Your task to perform on an android device: delete browsing data in the chrome app Image 0: 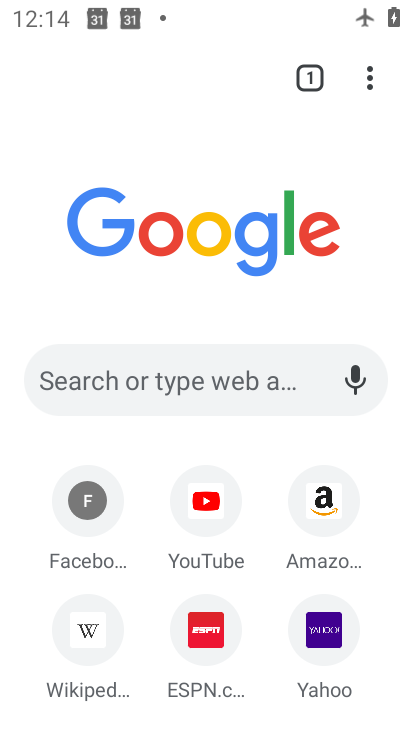
Step 0: click (367, 86)
Your task to perform on an android device: delete browsing data in the chrome app Image 1: 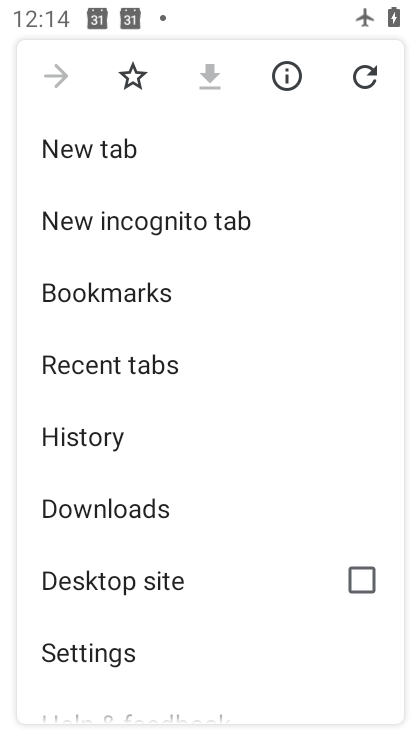
Step 1: click (95, 431)
Your task to perform on an android device: delete browsing data in the chrome app Image 2: 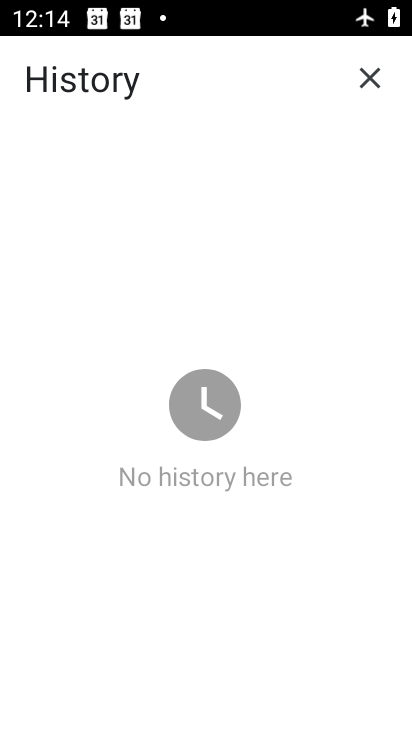
Step 2: task complete